Your task to perform on an android device: Open calendar and show me the first week of next month Image 0: 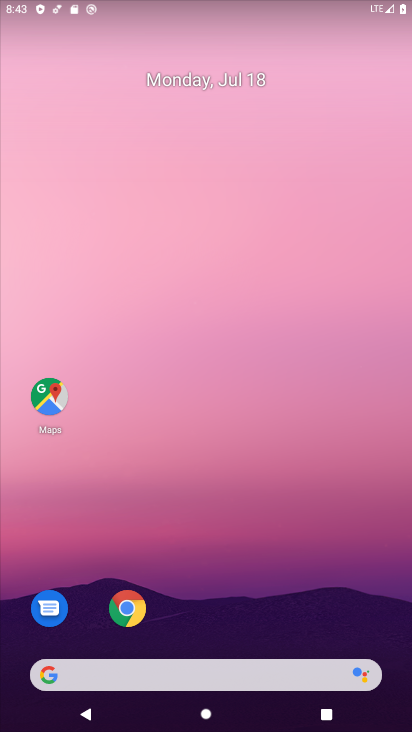
Step 0: drag from (47, 675) to (307, 20)
Your task to perform on an android device: Open calendar and show me the first week of next month Image 1: 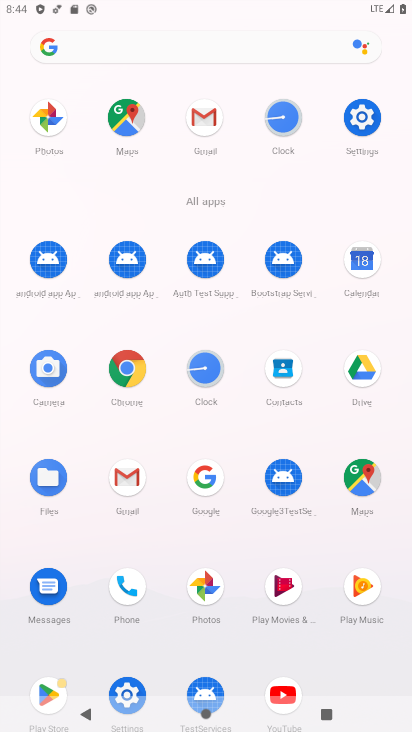
Step 1: click (353, 267)
Your task to perform on an android device: Open calendar and show me the first week of next month Image 2: 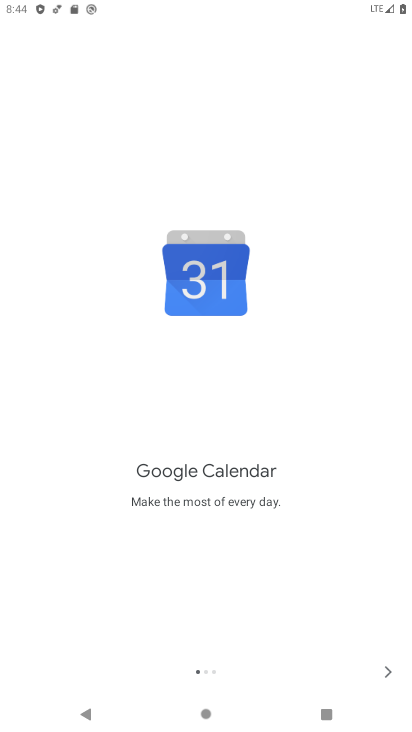
Step 2: click (397, 670)
Your task to perform on an android device: Open calendar and show me the first week of next month Image 3: 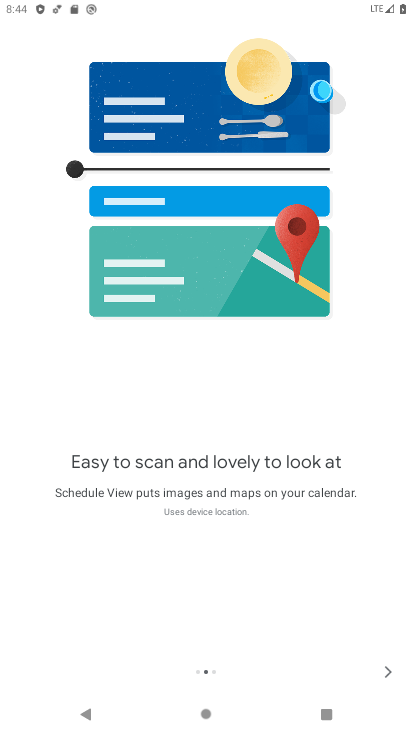
Step 3: click (392, 677)
Your task to perform on an android device: Open calendar and show me the first week of next month Image 4: 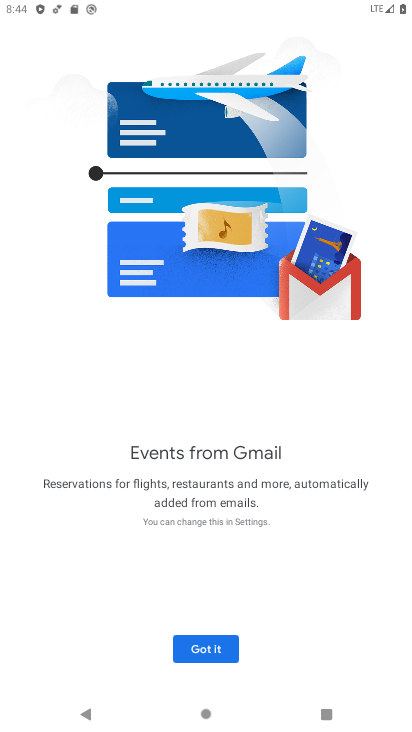
Step 4: click (201, 648)
Your task to perform on an android device: Open calendar and show me the first week of next month Image 5: 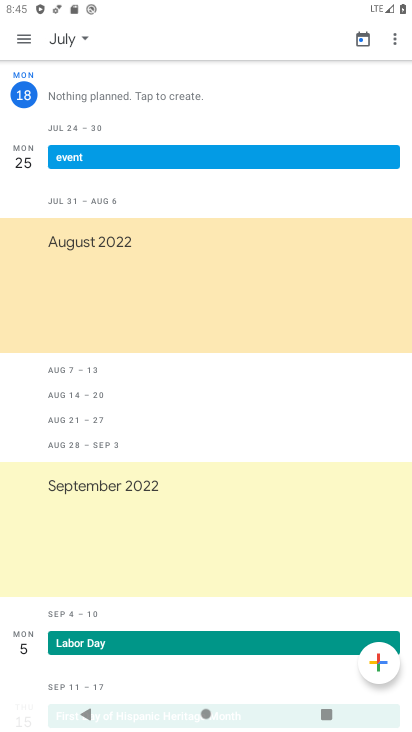
Step 5: click (79, 38)
Your task to perform on an android device: Open calendar and show me the first week of next month Image 6: 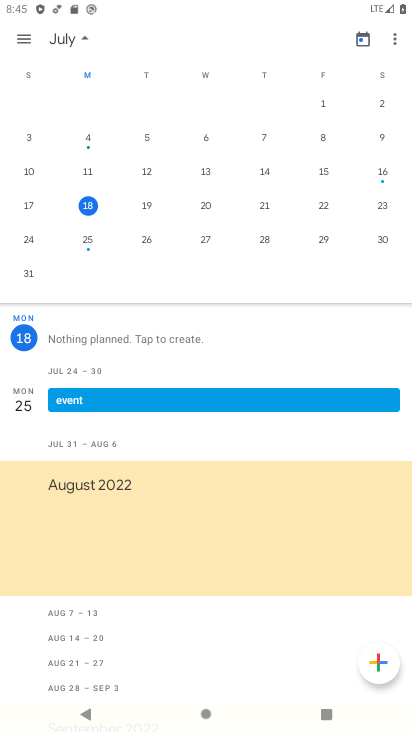
Step 6: task complete